Your task to perform on an android device: Open network settings Image 0: 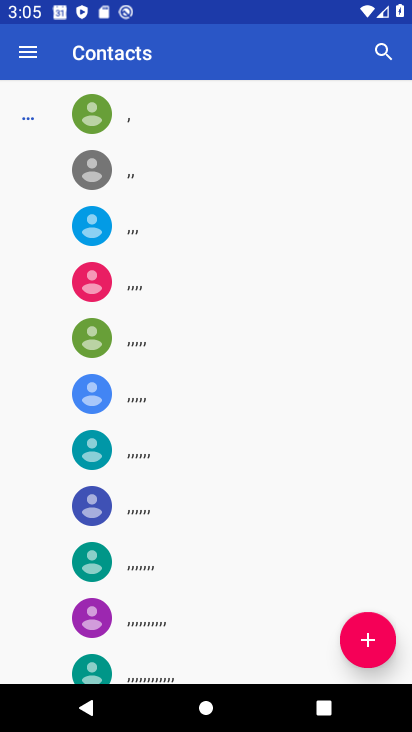
Step 0: press home button
Your task to perform on an android device: Open network settings Image 1: 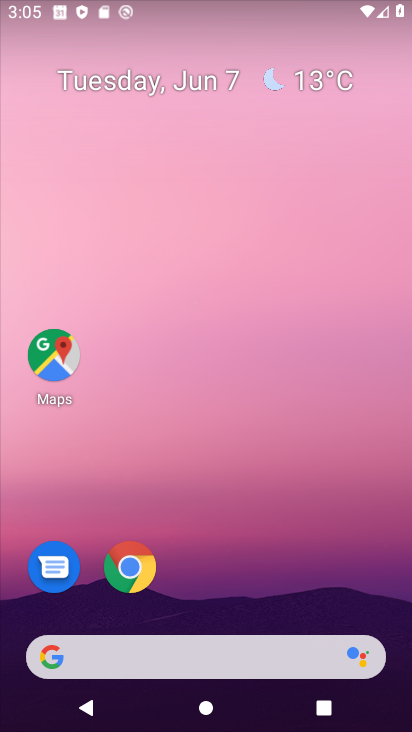
Step 1: drag from (354, 634) to (77, 127)
Your task to perform on an android device: Open network settings Image 2: 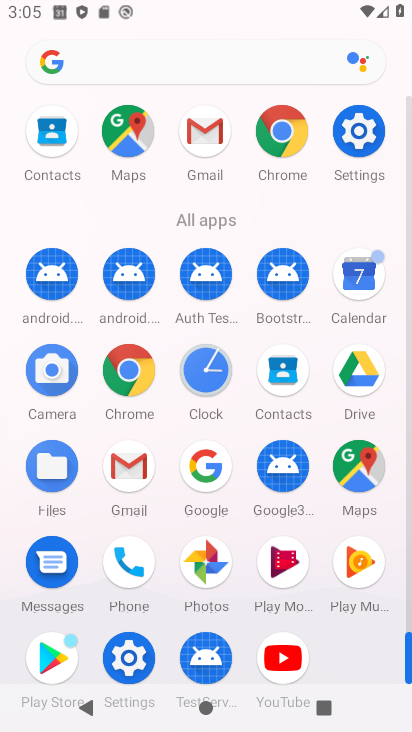
Step 2: click (369, 148)
Your task to perform on an android device: Open network settings Image 3: 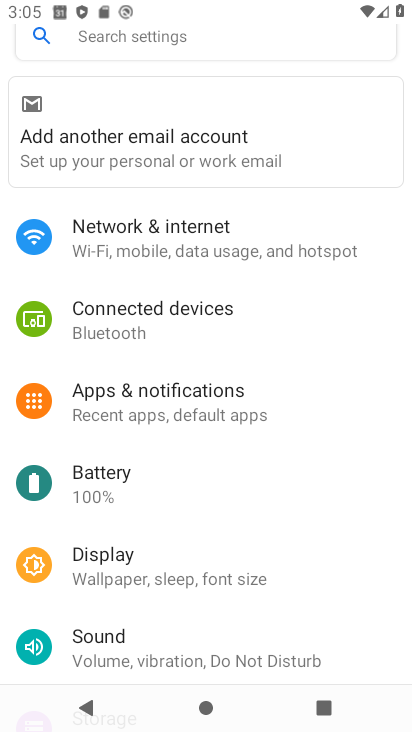
Step 3: click (42, 230)
Your task to perform on an android device: Open network settings Image 4: 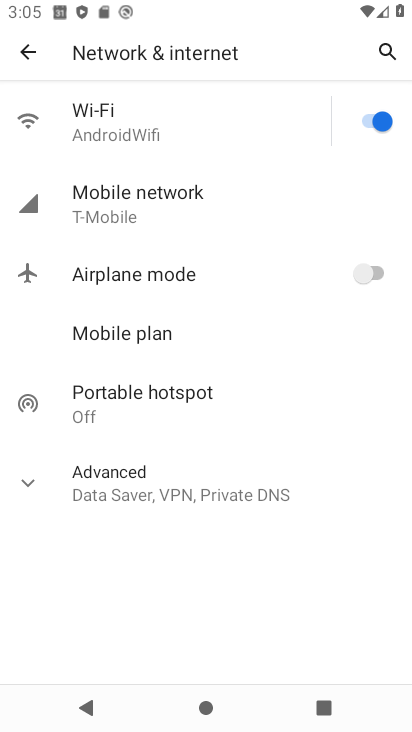
Step 4: task complete